Your task to perform on an android device: turn pop-ups on in chrome Image 0: 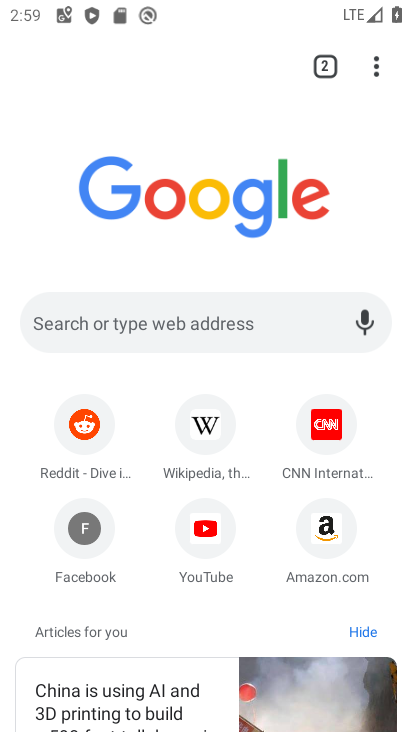
Step 0: press home button
Your task to perform on an android device: turn pop-ups on in chrome Image 1: 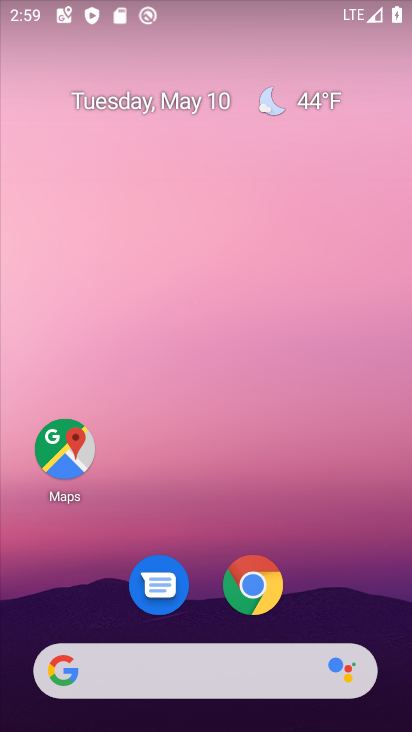
Step 1: click (263, 588)
Your task to perform on an android device: turn pop-ups on in chrome Image 2: 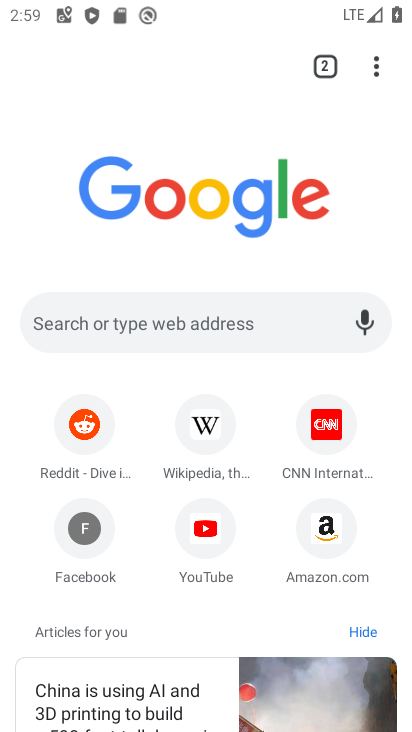
Step 2: click (371, 67)
Your task to perform on an android device: turn pop-ups on in chrome Image 3: 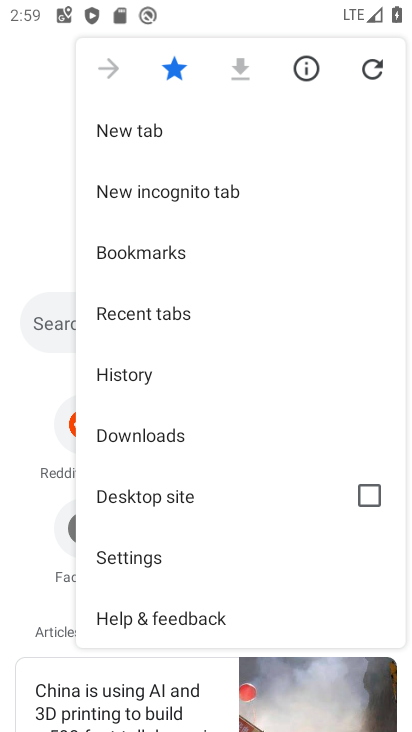
Step 3: click (153, 551)
Your task to perform on an android device: turn pop-ups on in chrome Image 4: 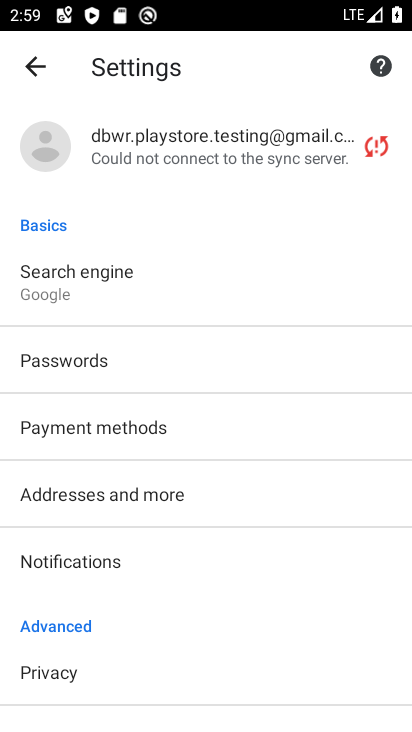
Step 4: drag from (246, 495) to (323, 133)
Your task to perform on an android device: turn pop-ups on in chrome Image 5: 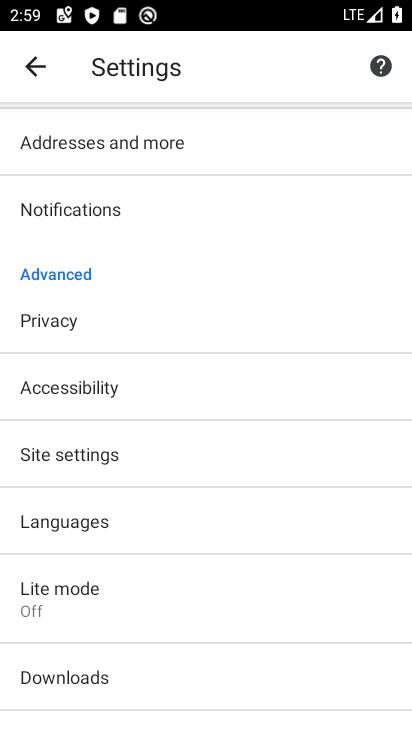
Step 5: click (247, 460)
Your task to perform on an android device: turn pop-ups on in chrome Image 6: 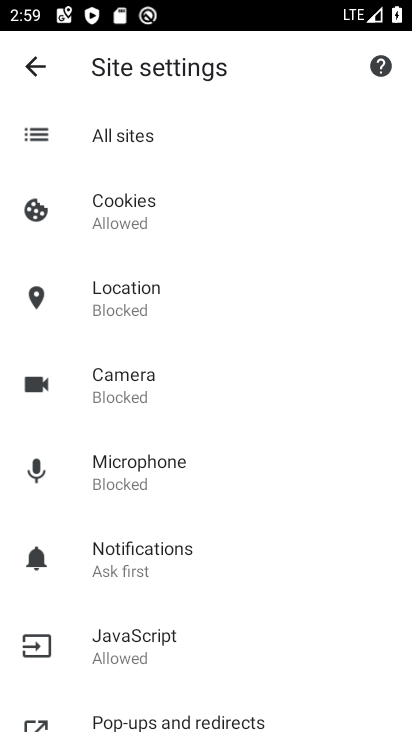
Step 6: click (239, 712)
Your task to perform on an android device: turn pop-ups on in chrome Image 7: 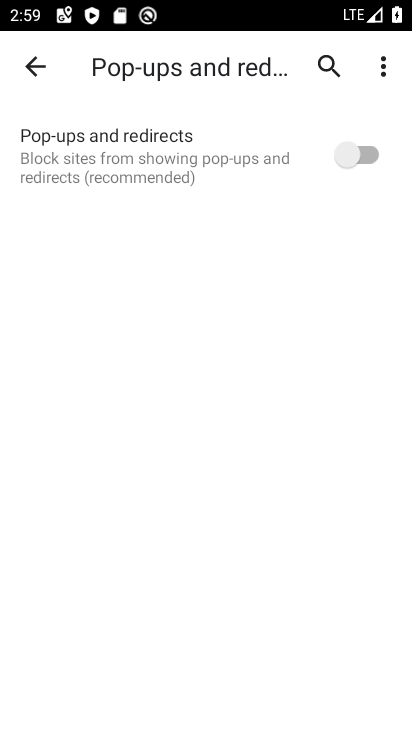
Step 7: click (357, 147)
Your task to perform on an android device: turn pop-ups on in chrome Image 8: 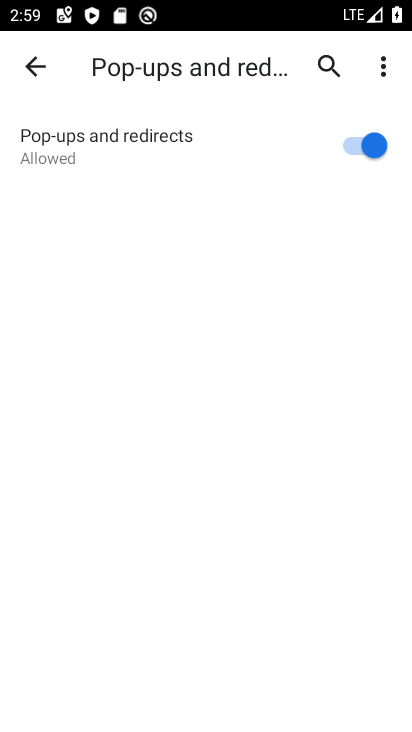
Step 8: task complete